Your task to perform on an android device: turn smart compose on in the gmail app Image 0: 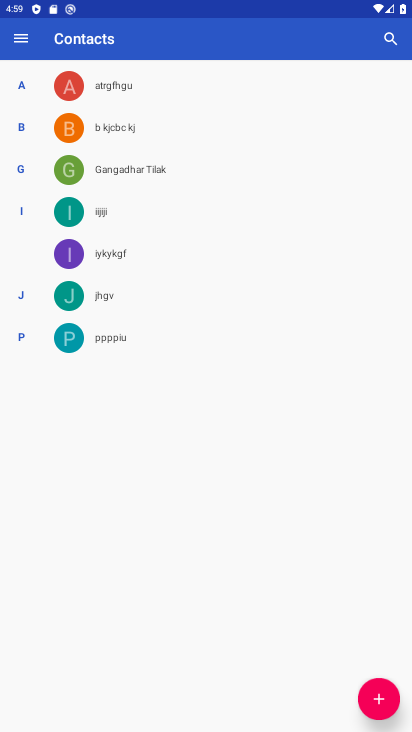
Step 0: press home button
Your task to perform on an android device: turn smart compose on in the gmail app Image 1: 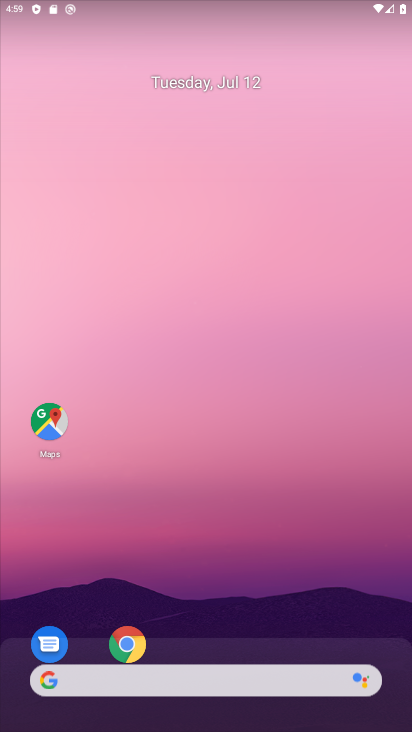
Step 1: drag from (233, 612) to (396, 53)
Your task to perform on an android device: turn smart compose on in the gmail app Image 2: 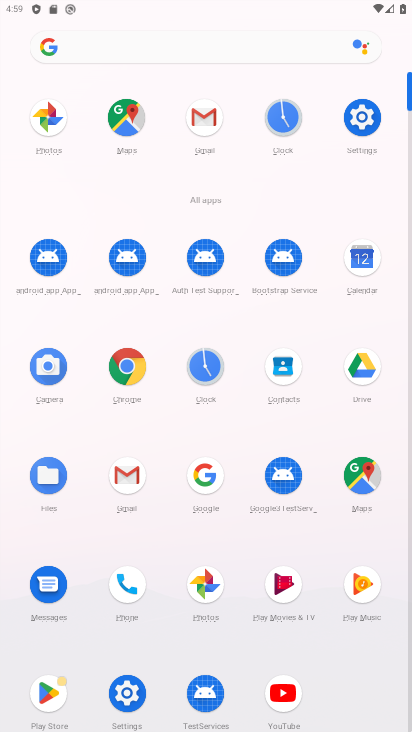
Step 2: click (119, 472)
Your task to perform on an android device: turn smart compose on in the gmail app Image 3: 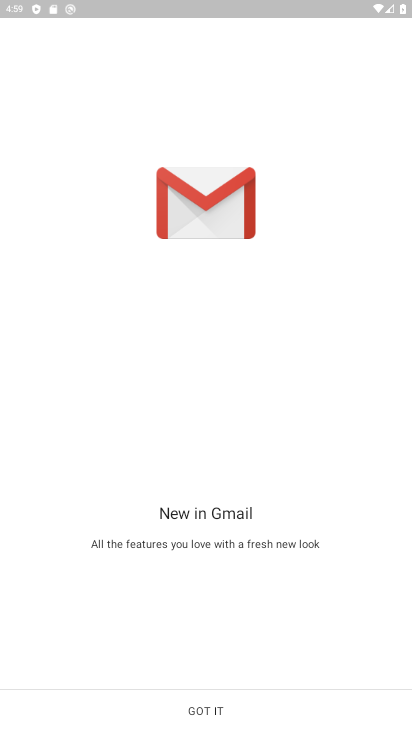
Step 3: click (188, 712)
Your task to perform on an android device: turn smart compose on in the gmail app Image 4: 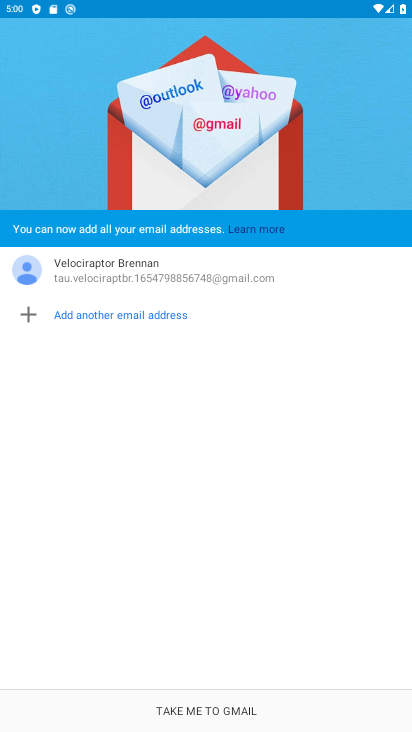
Step 4: click (149, 710)
Your task to perform on an android device: turn smart compose on in the gmail app Image 5: 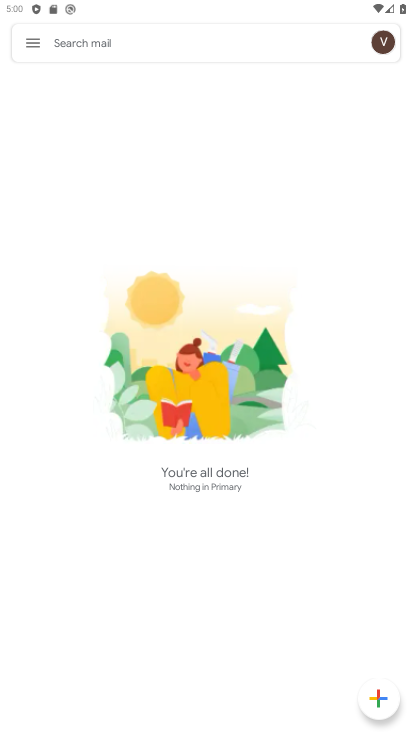
Step 5: click (41, 35)
Your task to perform on an android device: turn smart compose on in the gmail app Image 6: 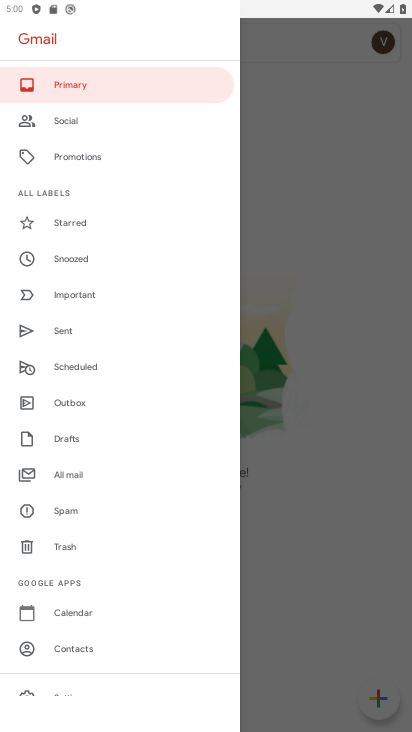
Step 6: drag from (38, 518) to (122, 381)
Your task to perform on an android device: turn smart compose on in the gmail app Image 7: 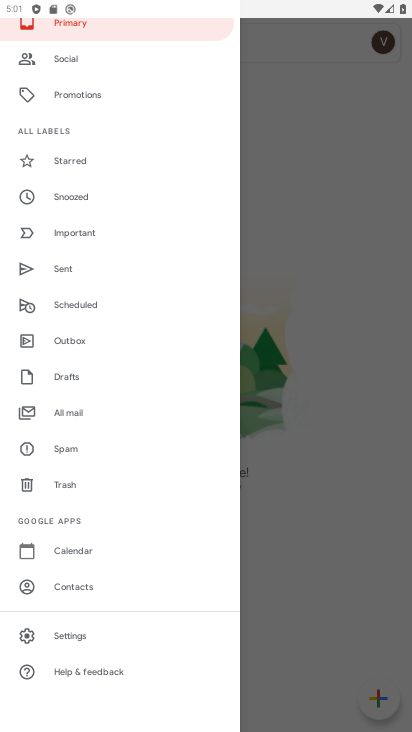
Step 7: click (56, 642)
Your task to perform on an android device: turn smart compose on in the gmail app Image 8: 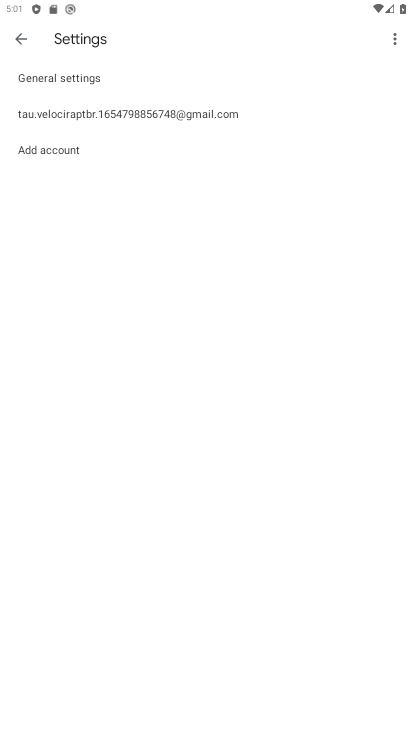
Step 8: click (209, 121)
Your task to perform on an android device: turn smart compose on in the gmail app Image 9: 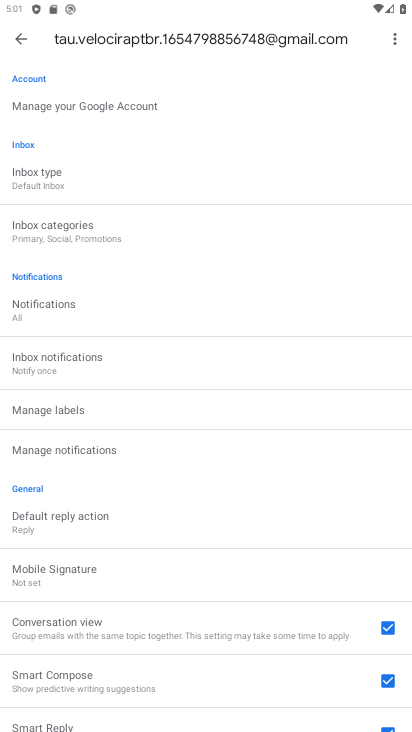
Step 9: drag from (90, 662) to (180, 435)
Your task to perform on an android device: turn smart compose on in the gmail app Image 10: 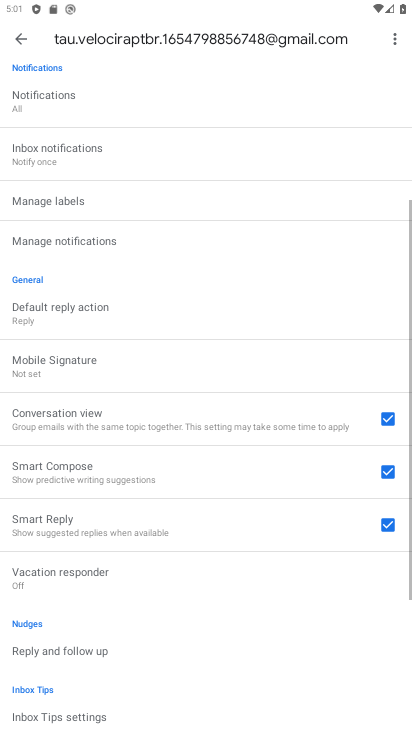
Step 10: click (180, 435)
Your task to perform on an android device: turn smart compose on in the gmail app Image 11: 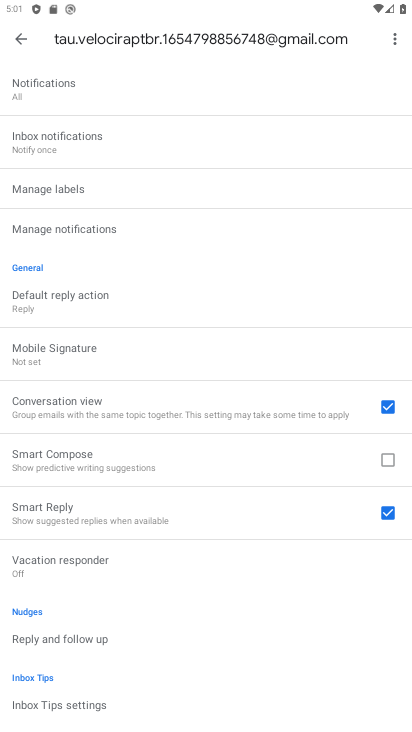
Step 11: click (396, 455)
Your task to perform on an android device: turn smart compose on in the gmail app Image 12: 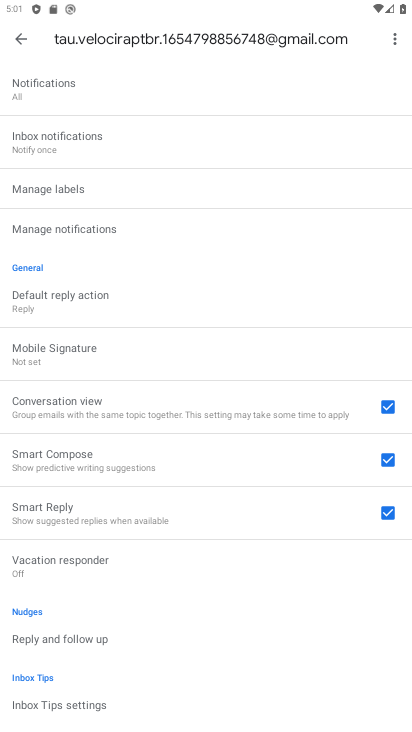
Step 12: task complete